Your task to perform on an android device: turn off location Image 0: 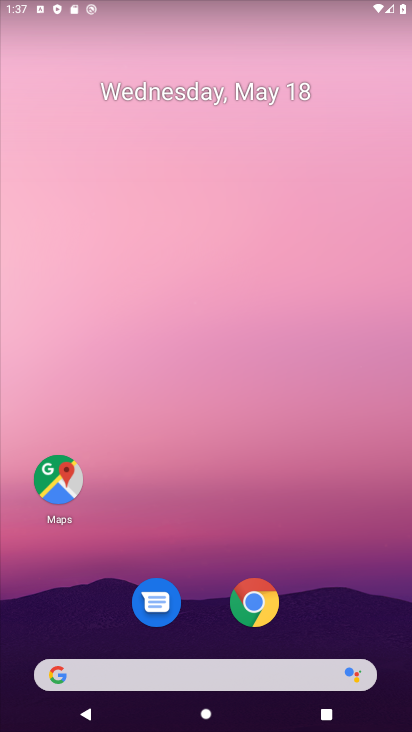
Step 0: drag from (127, 706) to (176, 154)
Your task to perform on an android device: turn off location Image 1: 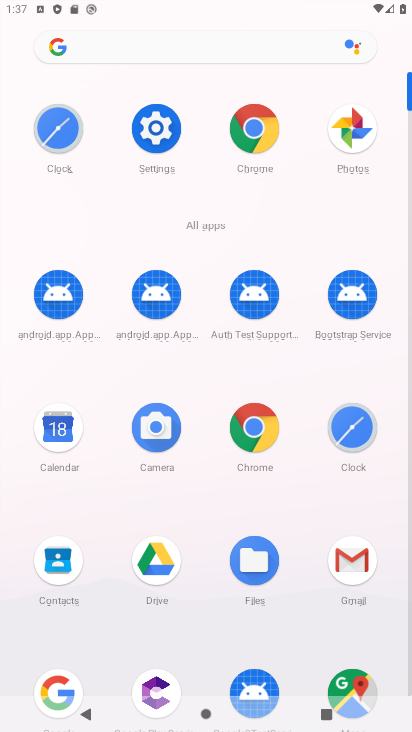
Step 1: click (150, 135)
Your task to perform on an android device: turn off location Image 2: 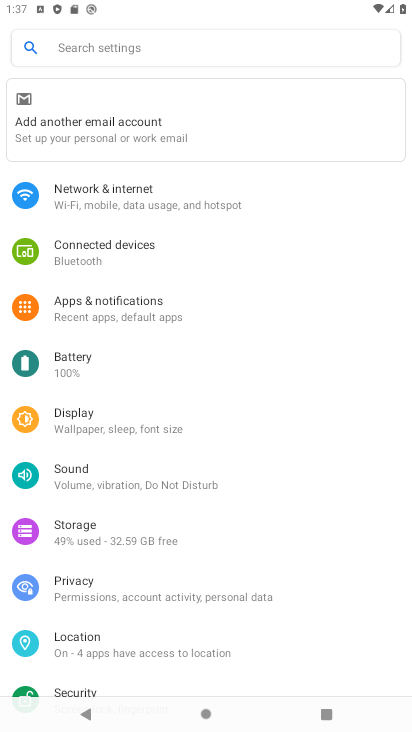
Step 2: click (135, 636)
Your task to perform on an android device: turn off location Image 3: 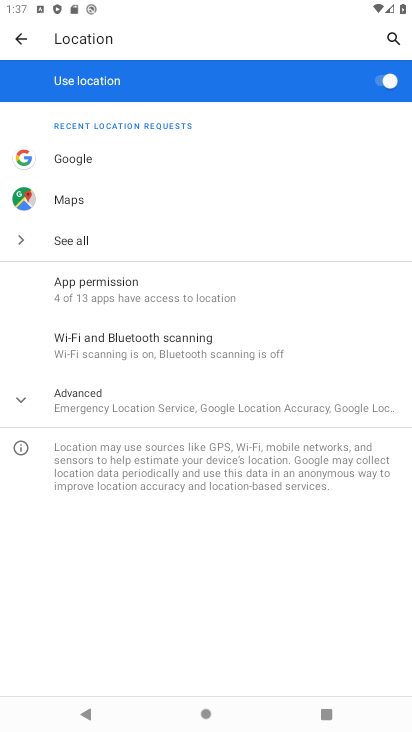
Step 3: click (385, 81)
Your task to perform on an android device: turn off location Image 4: 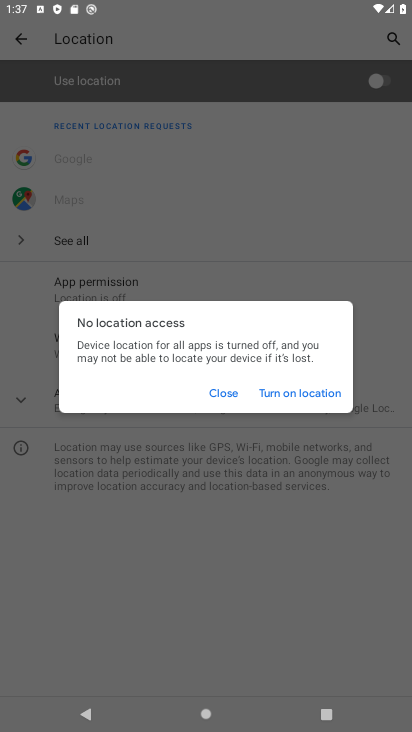
Step 4: task complete